Your task to perform on an android device: Go to Amazon Image 0: 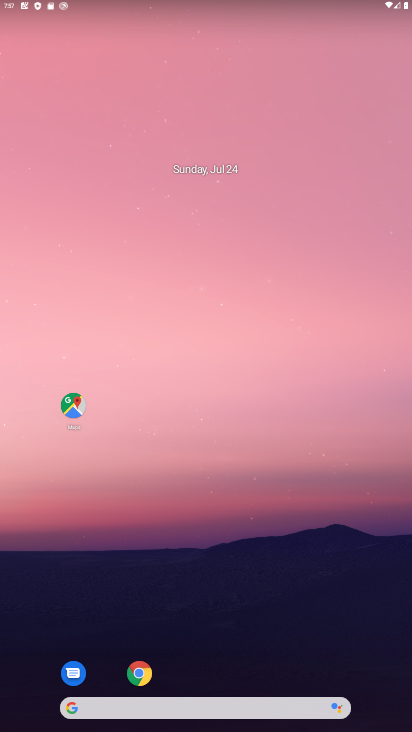
Step 0: drag from (148, 33) to (168, 0)
Your task to perform on an android device: Go to Amazon Image 1: 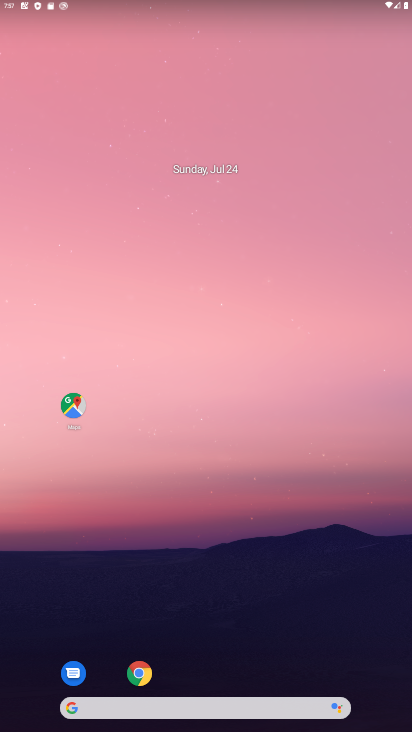
Step 1: drag from (184, 629) to (202, 291)
Your task to perform on an android device: Go to Amazon Image 2: 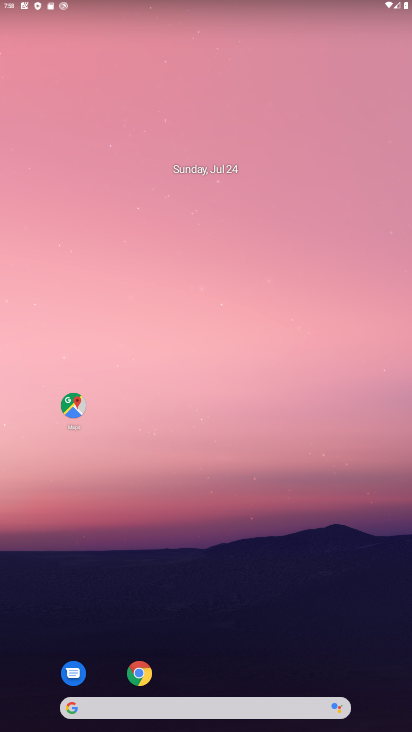
Step 2: drag from (186, 667) to (158, 153)
Your task to perform on an android device: Go to Amazon Image 3: 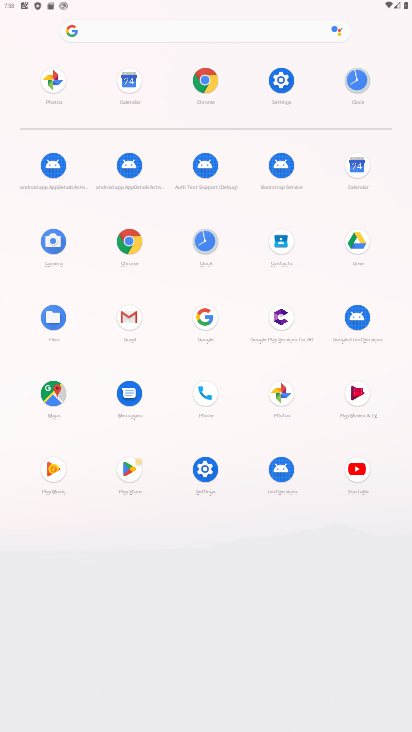
Step 3: click (124, 237)
Your task to perform on an android device: Go to Amazon Image 4: 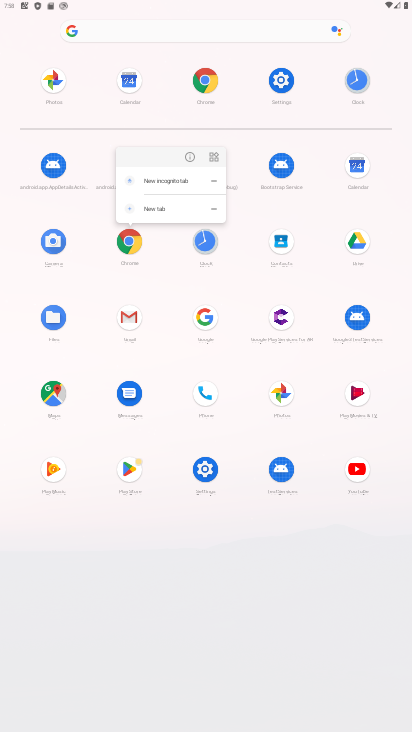
Step 4: click (183, 156)
Your task to perform on an android device: Go to Amazon Image 5: 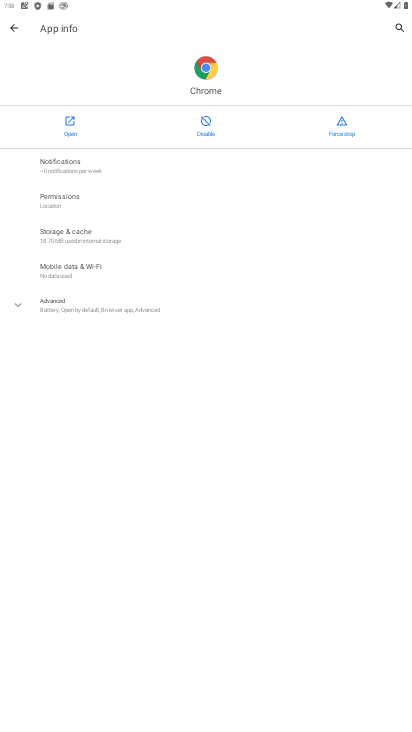
Step 5: click (69, 132)
Your task to perform on an android device: Go to Amazon Image 6: 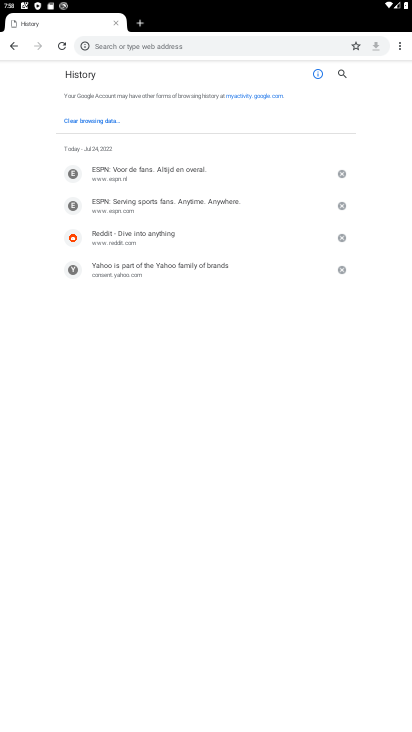
Step 6: click (152, 47)
Your task to perform on an android device: Go to Amazon Image 7: 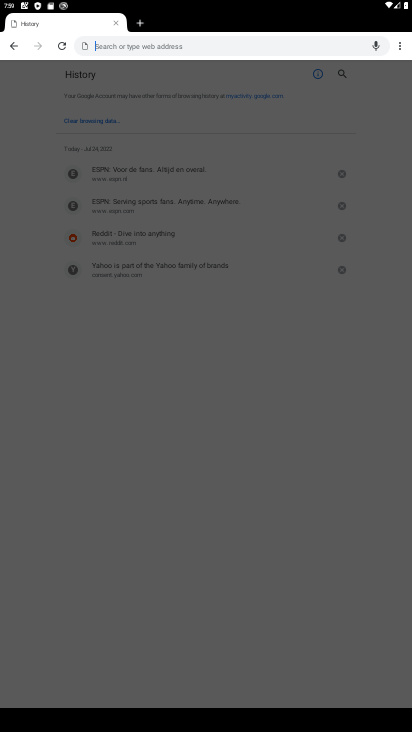
Step 7: type "amazon"
Your task to perform on an android device: Go to Amazon Image 8: 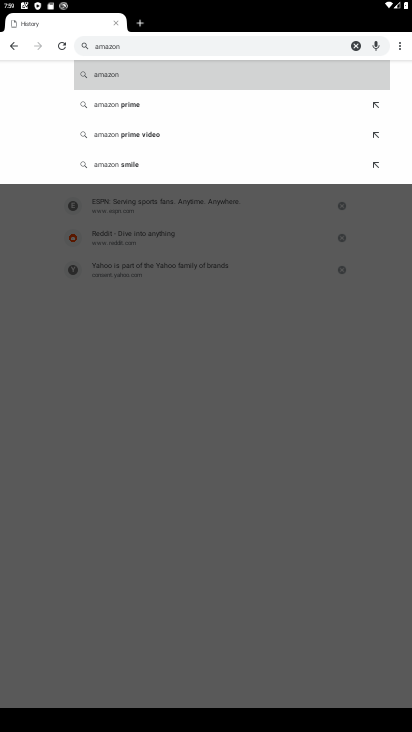
Step 8: click (120, 70)
Your task to perform on an android device: Go to Amazon Image 9: 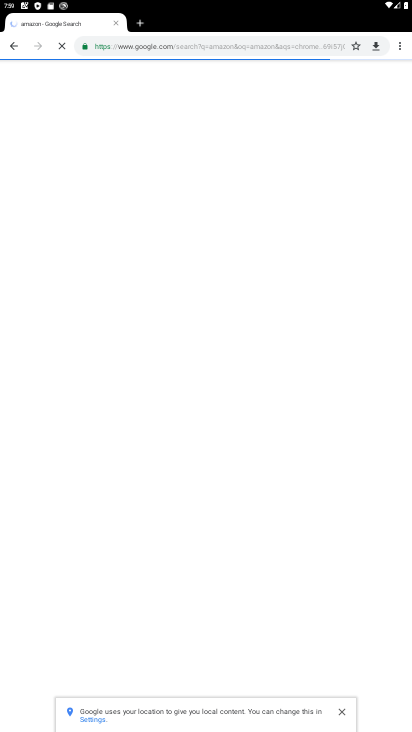
Step 9: drag from (241, 522) to (238, 155)
Your task to perform on an android device: Go to Amazon Image 10: 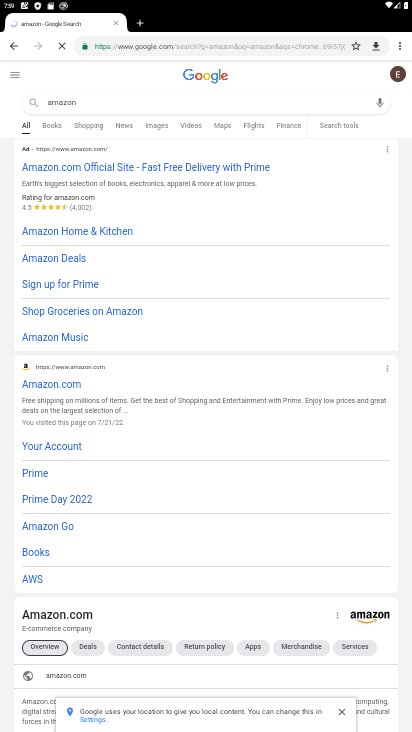
Step 10: drag from (199, 452) to (251, 140)
Your task to perform on an android device: Go to Amazon Image 11: 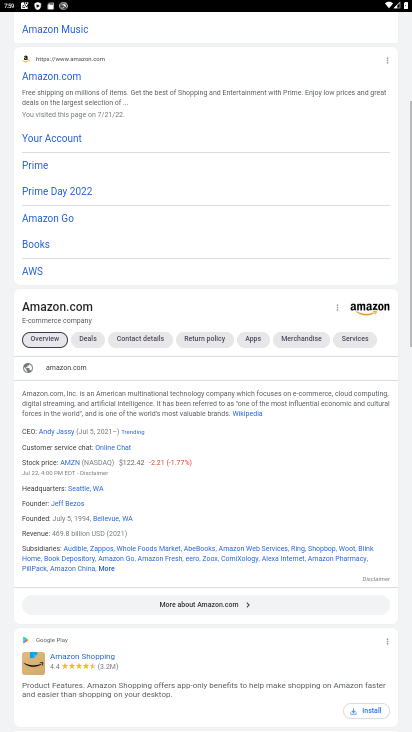
Step 11: drag from (215, 459) to (199, 239)
Your task to perform on an android device: Go to Amazon Image 12: 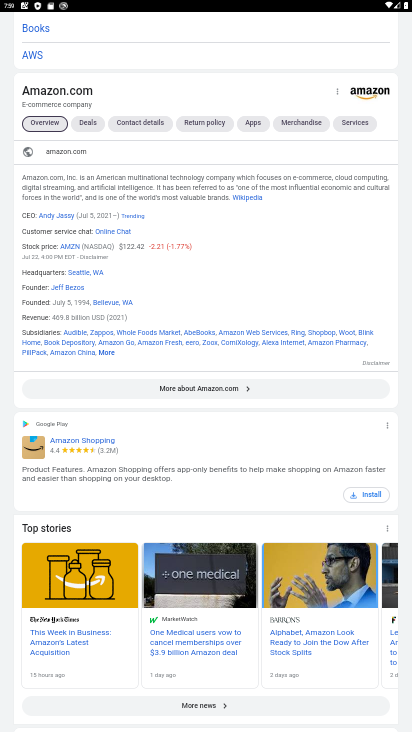
Step 12: drag from (191, 590) to (282, 182)
Your task to perform on an android device: Go to Amazon Image 13: 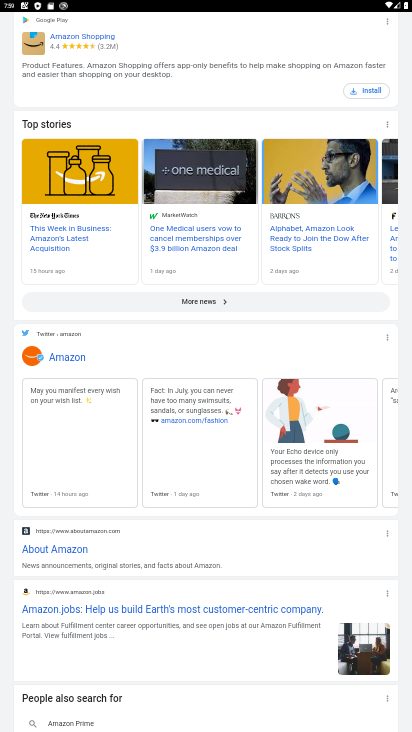
Step 13: click (44, 558)
Your task to perform on an android device: Go to Amazon Image 14: 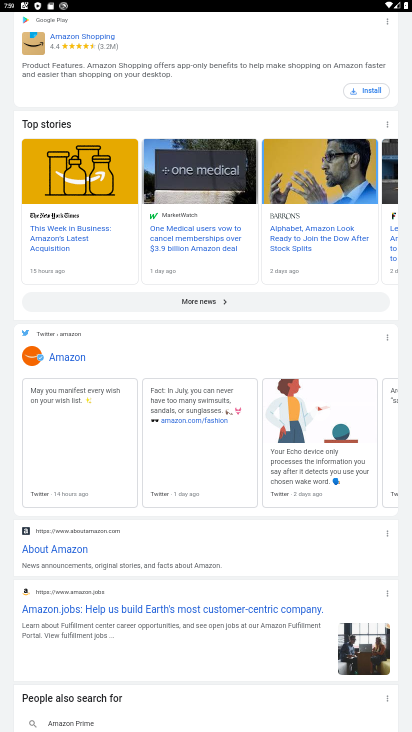
Step 14: click (34, 545)
Your task to perform on an android device: Go to Amazon Image 15: 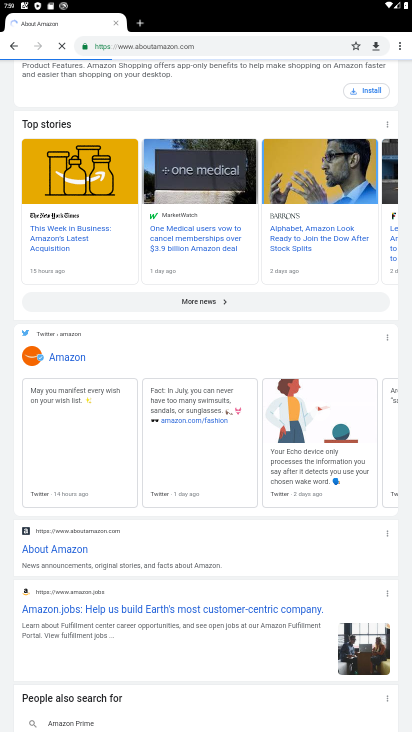
Step 15: task complete